Your task to perform on an android device: Check the news Image 0: 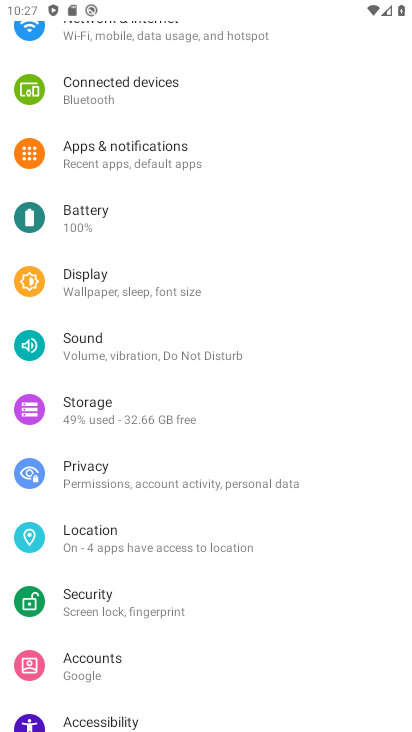
Step 0: press home button
Your task to perform on an android device: Check the news Image 1: 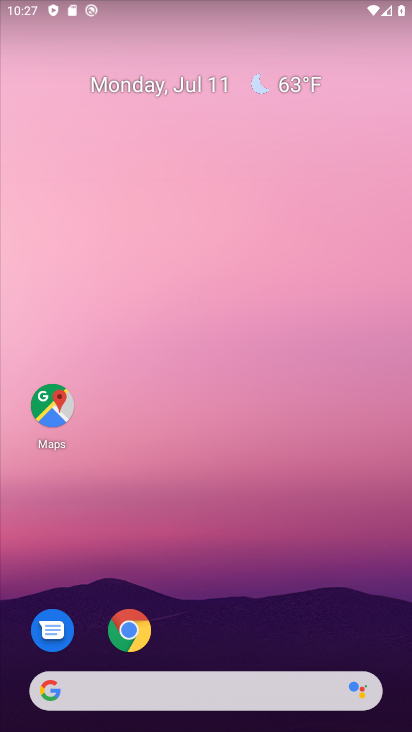
Step 1: task complete